Your task to perform on an android device: Open settings Image 0: 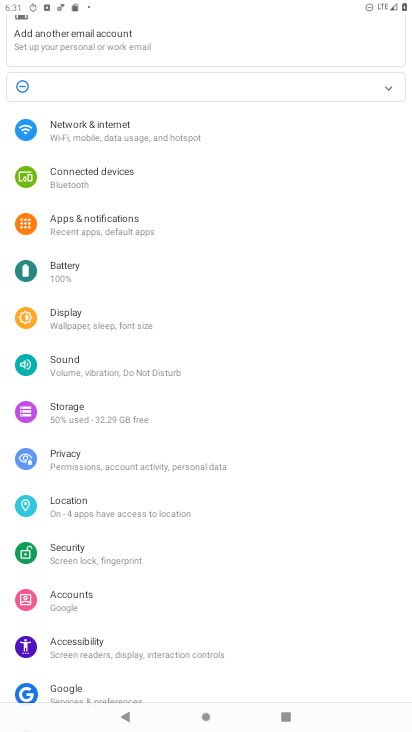
Step 0: task complete